Your task to perform on an android device: Add "apple airpods" to the cart on bestbuy, then select checkout. Image 0: 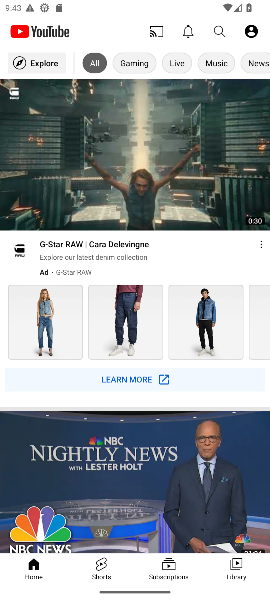
Step 0: press home button
Your task to perform on an android device: Add "apple airpods" to the cart on bestbuy, then select checkout. Image 1: 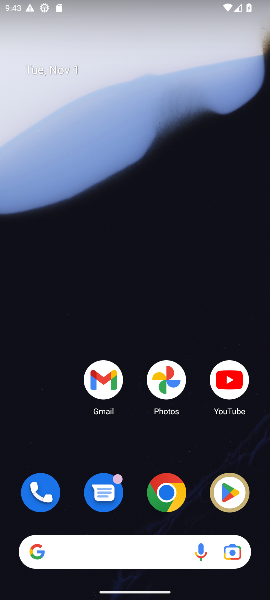
Step 1: click (164, 488)
Your task to perform on an android device: Add "apple airpods" to the cart on bestbuy, then select checkout. Image 2: 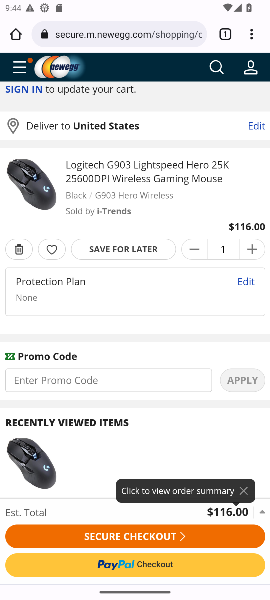
Step 2: drag from (145, 383) to (142, 270)
Your task to perform on an android device: Add "apple airpods" to the cart on bestbuy, then select checkout. Image 3: 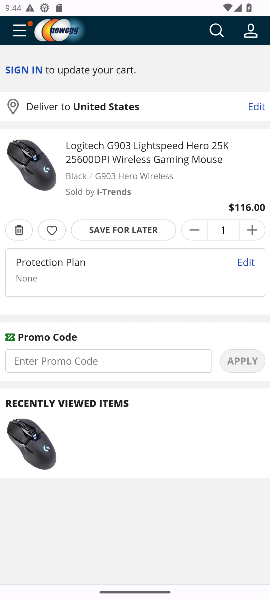
Step 3: press home button
Your task to perform on an android device: Add "apple airpods" to the cart on bestbuy, then select checkout. Image 4: 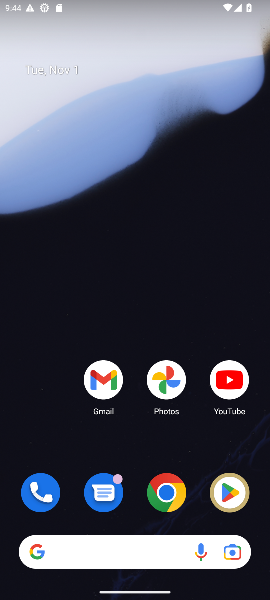
Step 4: click (161, 500)
Your task to perform on an android device: Add "apple airpods" to the cart on bestbuy, then select checkout. Image 5: 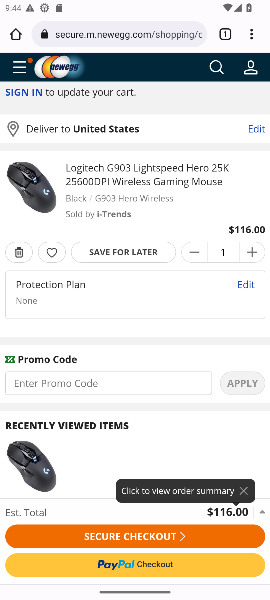
Step 5: click (80, 33)
Your task to perform on an android device: Add "apple airpods" to the cart on bestbuy, then select checkout. Image 6: 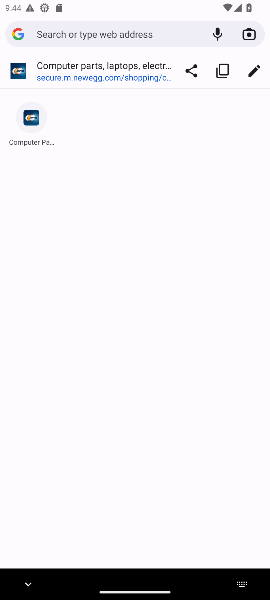
Step 6: type "bestbuy"
Your task to perform on an android device: Add "apple airpods" to the cart on bestbuy, then select checkout. Image 7: 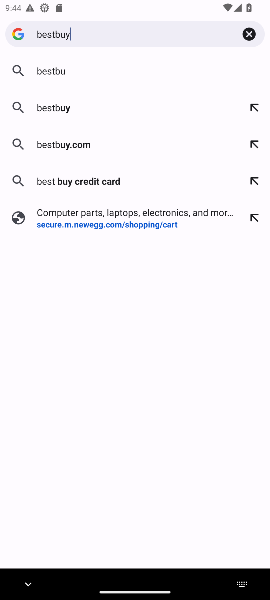
Step 7: type ""
Your task to perform on an android device: Add "apple airpods" to the cart on bestbuy, then select checkout. Image 8: 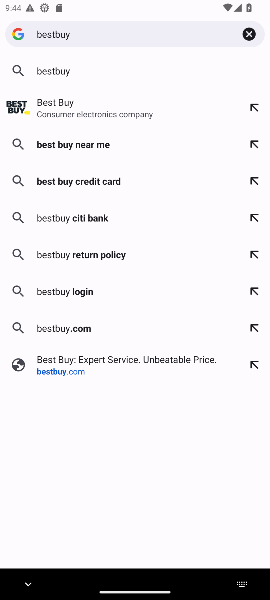
Step 8: click (61, 105)
Your task to perform on an android device: Add "apple airpods" to the cart on bestbuy, then select checkout. Image 9: 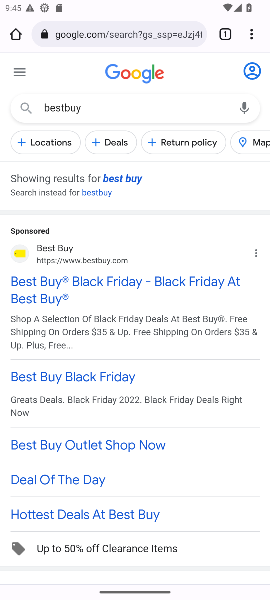
Step 9: click (23, 283)
Your task to perform on an android device: Add "apple airpods" to the cart on bestbuy, then select checkout. Image 10: 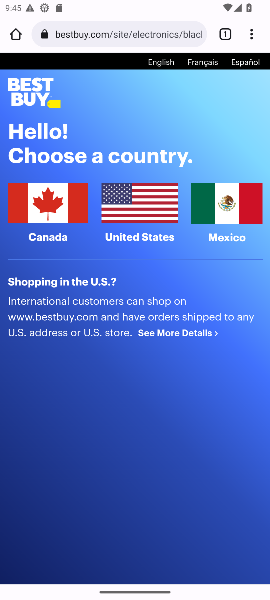
Step 10: click (58, 196)
Your task to perform on an android device: Add "apple airpods" to the cart on bestbuy, then select checkout. Image 11: 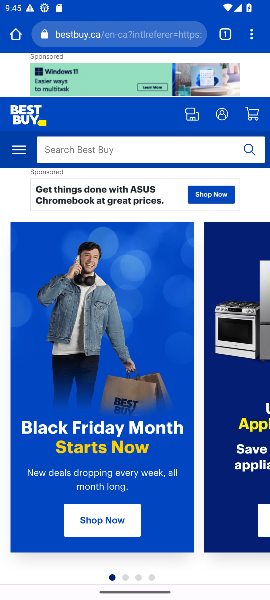
Step 11: click (68, 144)
Your task to perform on an android device: Add "apple airpods" to the cart on bestbuy, then select checkout. Image 12: 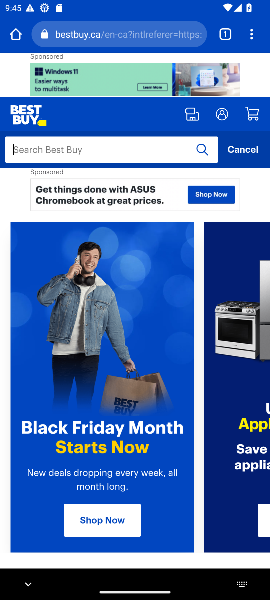
Step 12: type "apple airpods"
Your task to perform on an android device: Add "apple airpods" to the cart on bestbuy, then select checkout. Image 13: 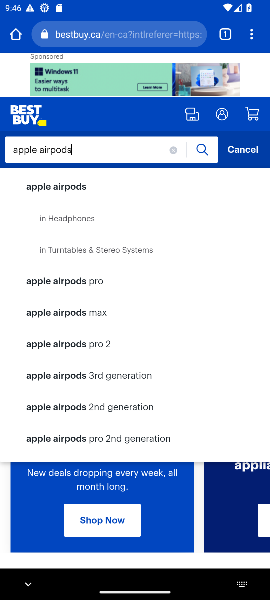
Step 13: click (57, 187)
Your task to perform on an android device: Add "apple airpods" to the cart on bestbuy, then select checkout. Image 14: 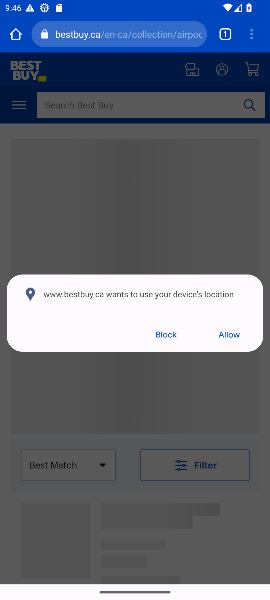
Step 14: click (230, 328)
Your task to perform on an android device: Add "apple airpods" to the cart on bestbuy, then select checkout. Image 15: 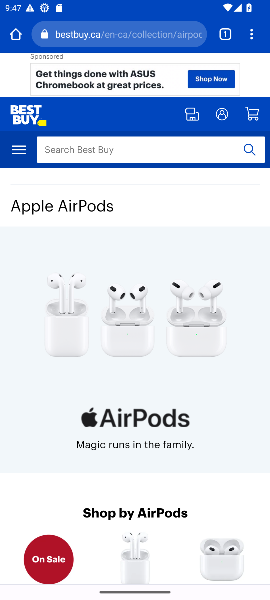
Step 15: drag from (179, 417) to (218, 95)
Your task to perform on an android device: Add "apple airpods" to the cart on bestbuy, then select checkout. Image 16: 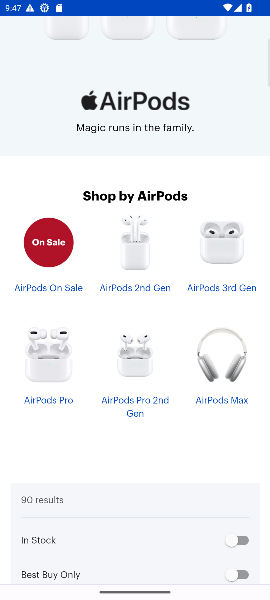
Step 16: drag from (136, 333) to (156, 106)
Your task to perform on an android device: Add "apple airpods" to the cart on bestbuy, then select checkout. Image 17: 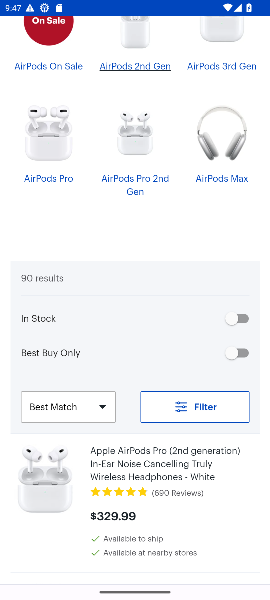
Step 17: click (111, 499)
Your task to perform on an android device: Add "apple airpods" to the cart on bestbuy, then select checkout. Image 18: 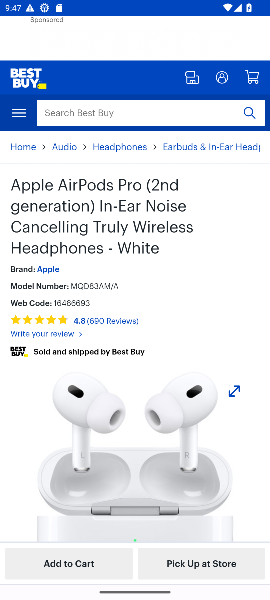
Step 18: drag from (109, 454) to (119, 344)
Your task to perform on an android device: Add "apple airpods" to the cart on bestbuy, then select checkout. Image 19: 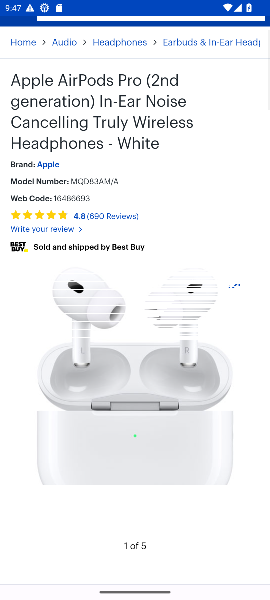
Step 19: click (70, 559)
Your task to perform on an android device: Add "apple airpods" to the cart on bestbuy, then select checkout. Image 20: 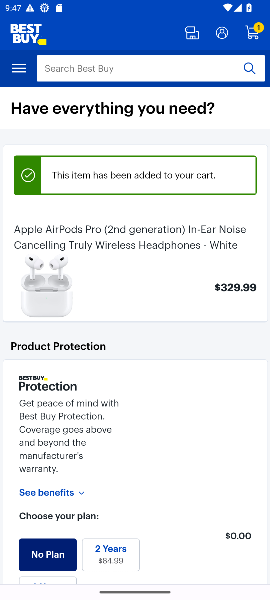
Step 20: drag from (169, 456) to (201, 164)
Your task to perform on an android device: Add "apple airpods" to the cart on bestbuy, then select checkout. Image 21: 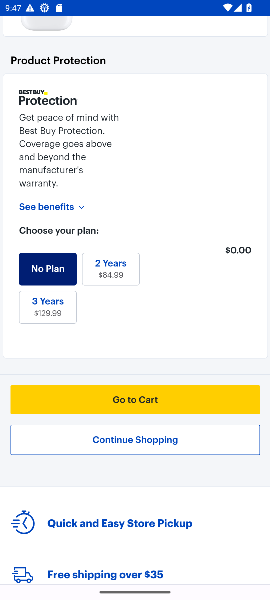
Step 21: click (159, 396)
Your task to perform on an android device: Add "apple airpods" to the cart on bestbuy, then select checkout. Image 22: 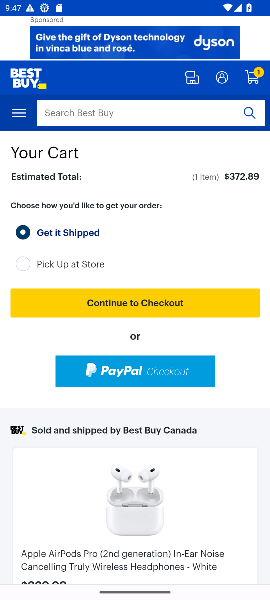
Step 22: click (171, 303)
Your task to perform on an android device: Add "apple airpods" to the cart on bestbuy, then select checkout. Image 23: 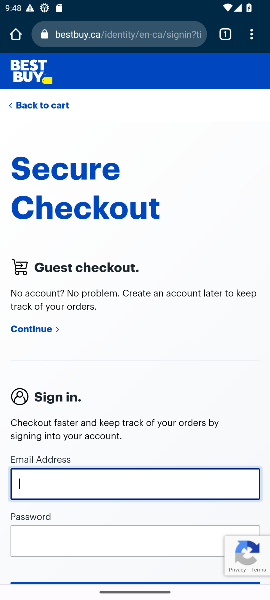
Step 23: task complete